Your task to perform on an android device: Go to eBay Image 0: 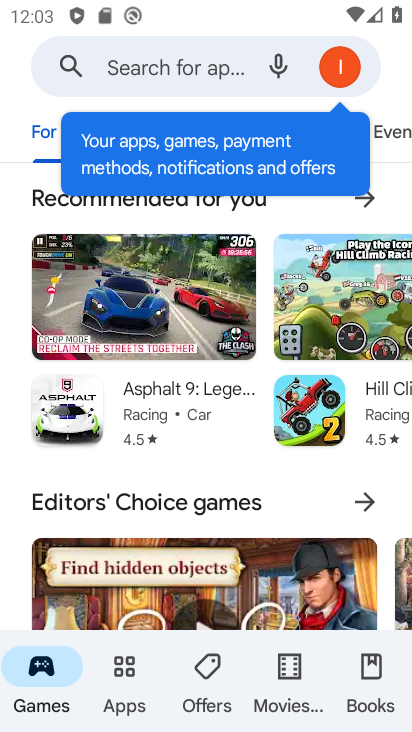
Step 0: press home button
Your task to perform on an android device: Go to eBay Image 1: 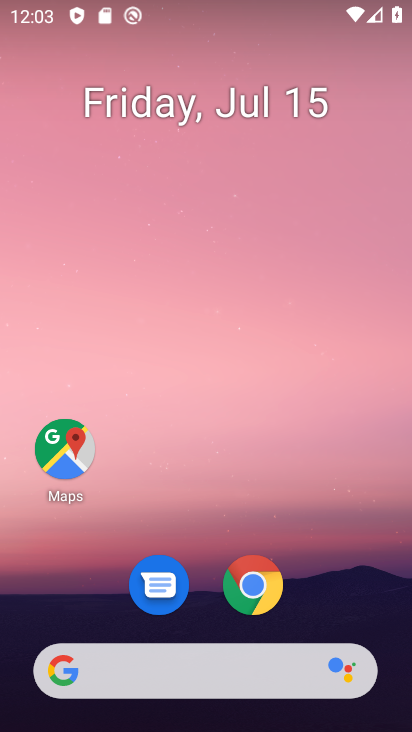
Step 1: click (209, 673)
Your task to perform on an android device: Go to eBay Image 2: 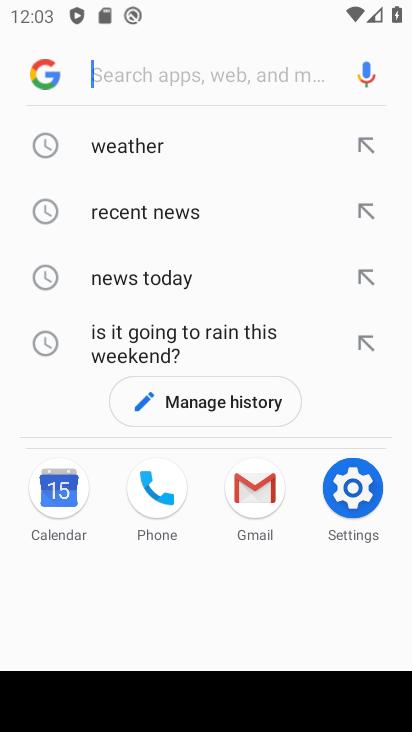
Step 2: type "ebay"
Your task to perform on an android device: Go to eBay Image 3: 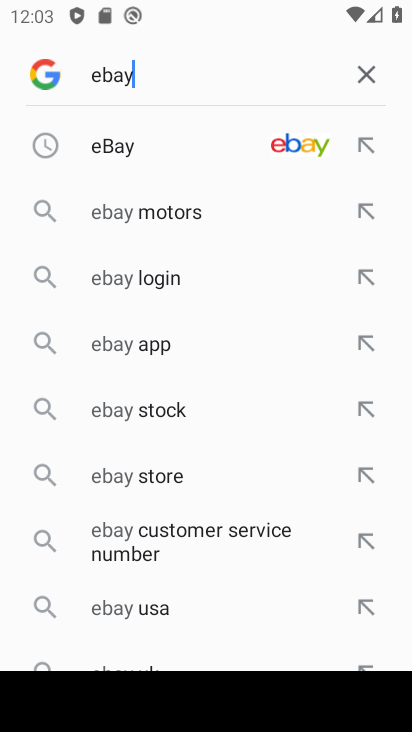
Step 3: click (294, 157)
Your task to perform on an android device: Go to eBay Image 4: 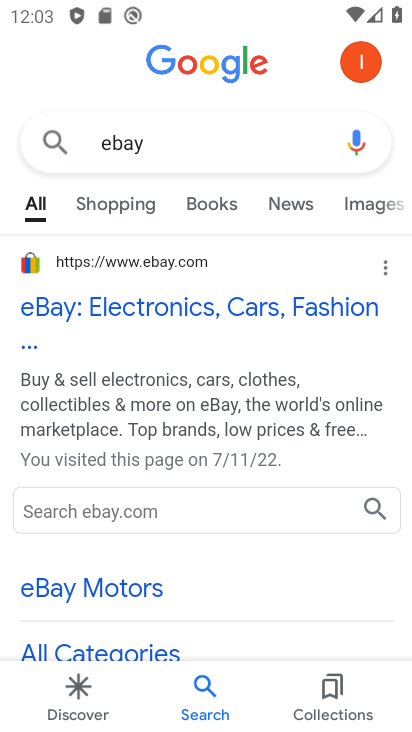
Step 4: click (181, 309)
Your task to perform on an android device: Go to eBay Image 5: 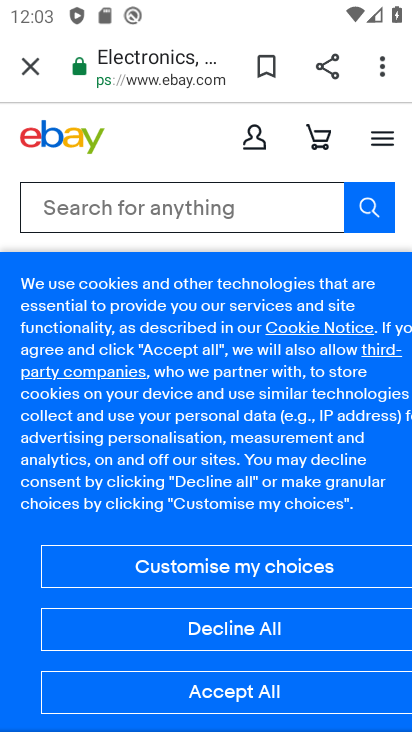
Step 5: task complete